Your task to perform on an android device: toggle translation in the chrome app Image 0: 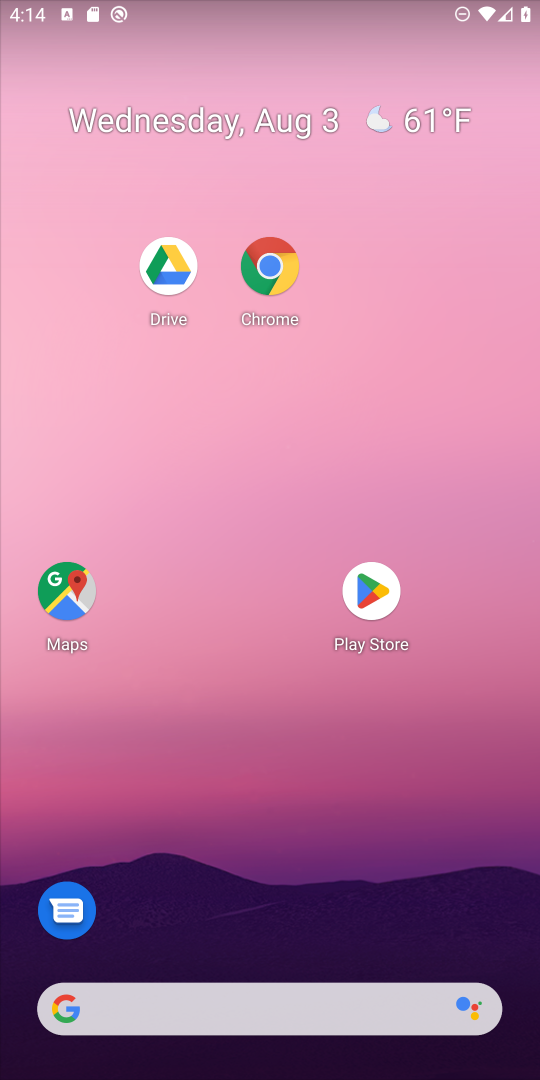
Step 0: task impossible